Your task to perform on an android device: toggle notification dots Image 0: 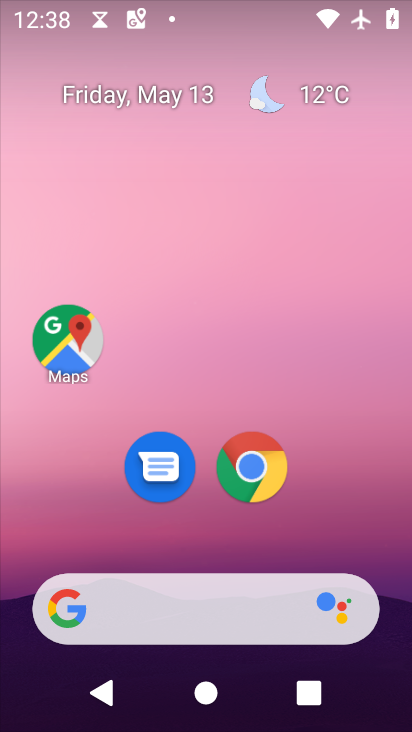
Step 0: drag from (317, 548) to (205, 65)
Your task to perform on an android device: toggle notification dots Image 1: 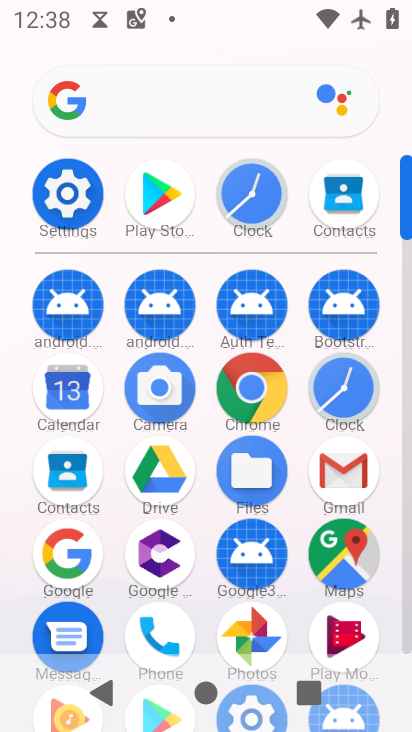
Step 1: click (91, 199)
Your task to perform on an android device: toggle notification dots Image 2: 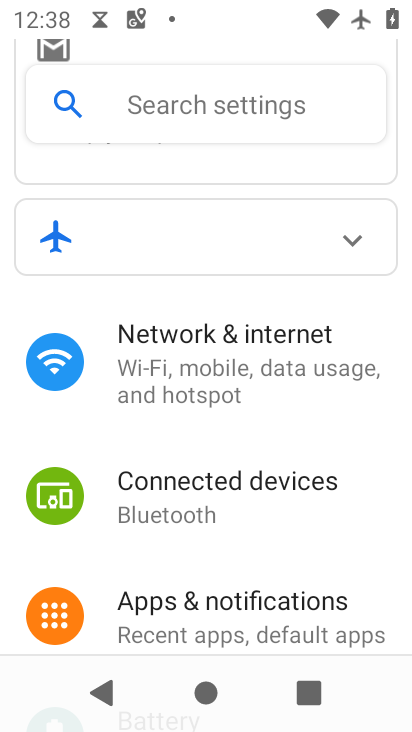
Step 2: drag from (254, 534) to (247, 278)
Your task to perform on an android device: toggle notification dots Image 3: 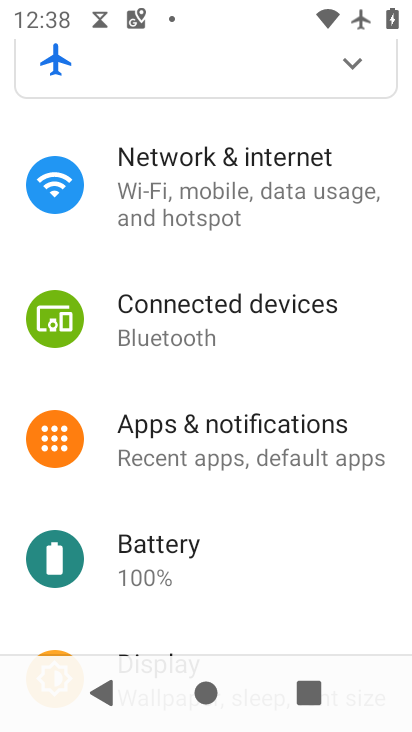
Step 3: click (249, 424)
Your task to perform on an android device: toggle notification dots Image 4: 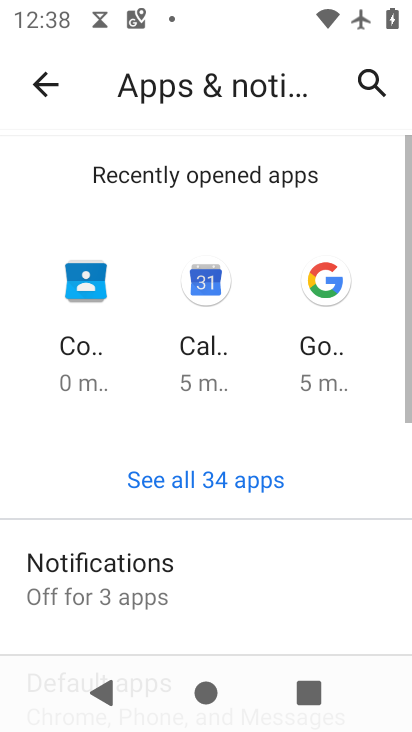
Step 4: click (177, 576)
Your task to perform on an android device: toggle notification dots Image 5: 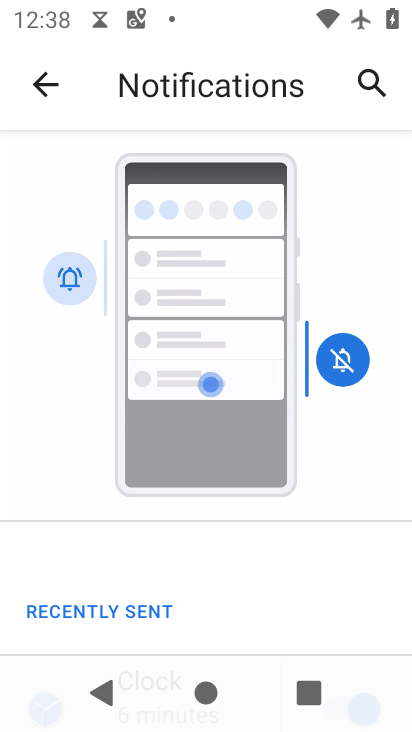
Step 5: drag from (224, 562) to (188, 164)
Your task to perform on an android device: toggle notification dots Image 6: 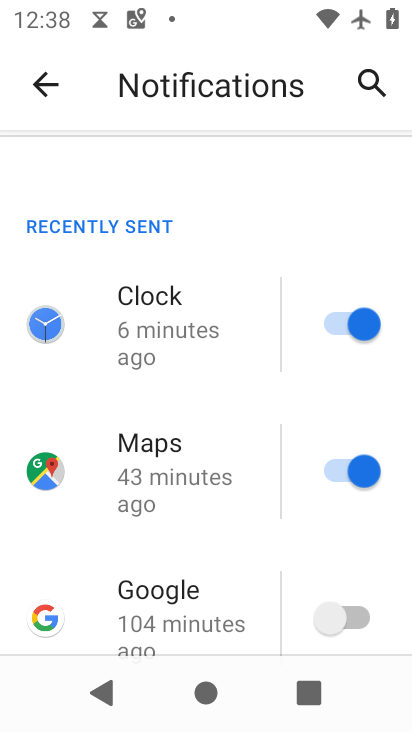
Step 6: drag from (214, 488) to (195, 170)
Your task to perform on an android device: toggle notification dots Image 7: 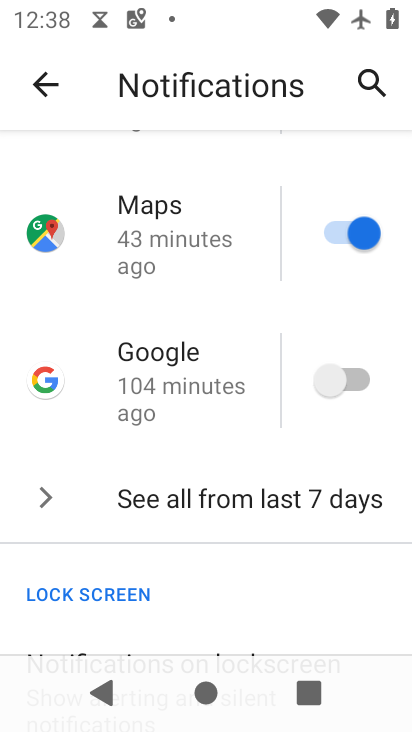
Step 7: drag from (222, 493) to (217, 149)
Your task to perform on an android device: toggle notification dots Image 8: 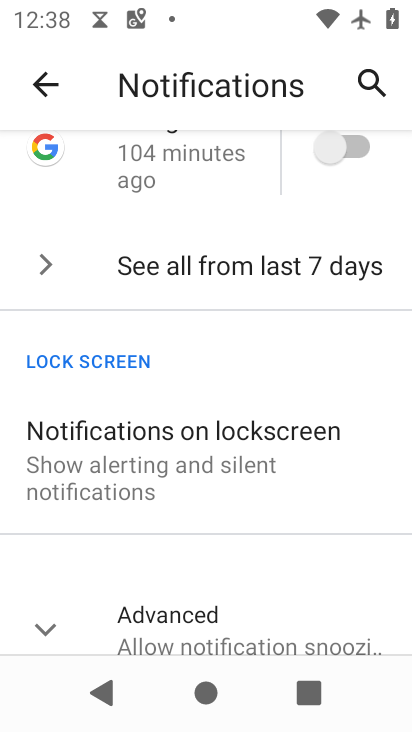
Step 8: drag from (179, 485) to (146, 199)
Your task to perform on an android device: toggle notification dots Image 9: 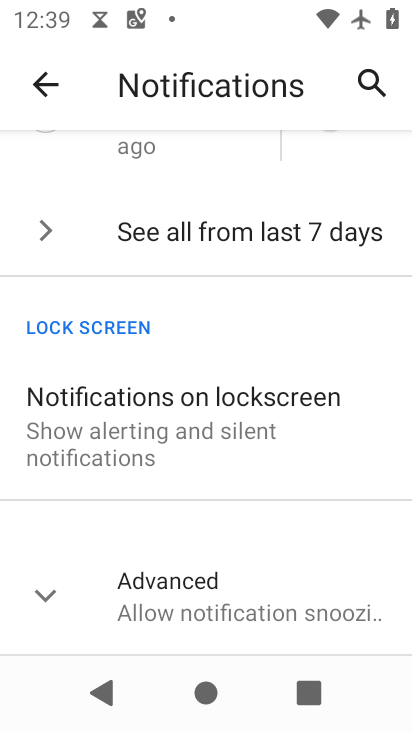
Step 9: click (204, 592)
Your task to perform on an android device: toggle notification dots Image 10: 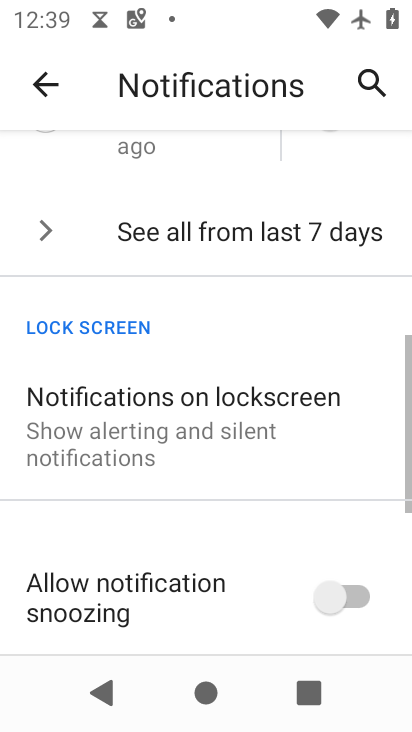
Step 10: drag from (181, 579) to (127, 171)
Your task to perform on an android device: toggle notification dots Image 11: 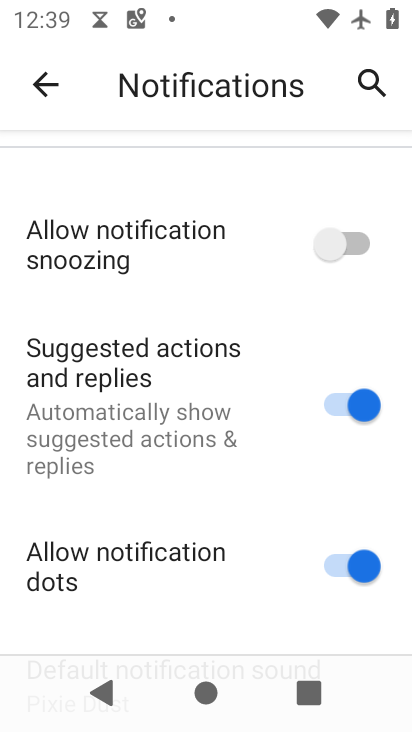
Step 11: click (349, 556)
Your task to perform on an android device: toggle notification dots Image 12: 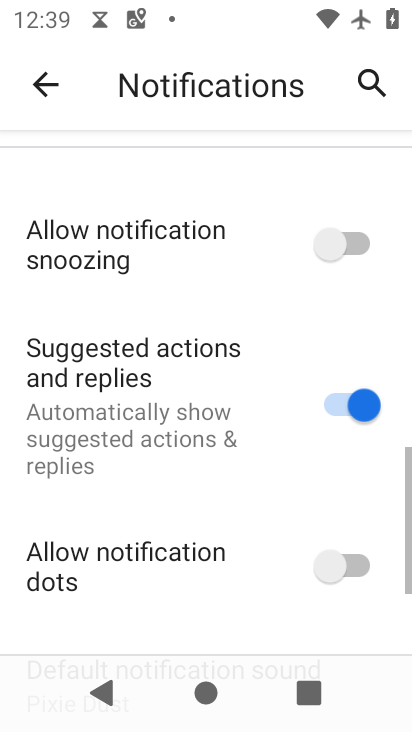
Step 12: task complete